Your task to perform on an android device: What's on my calendar tomorrow? Image 0: 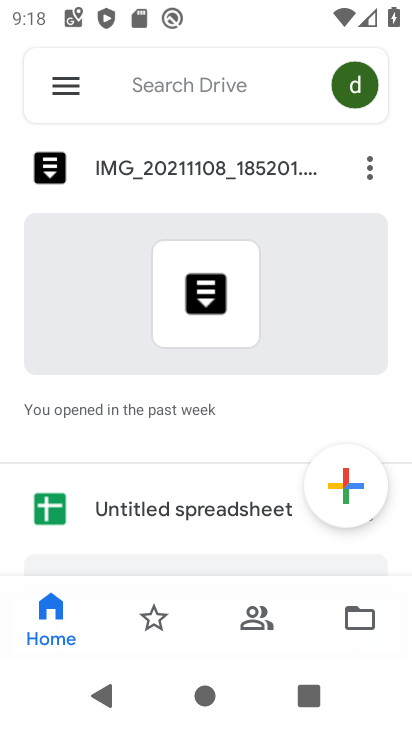
Step 0: press home button
Your task to perform on an android device: What's on my calendar tomorrow? Image 1: 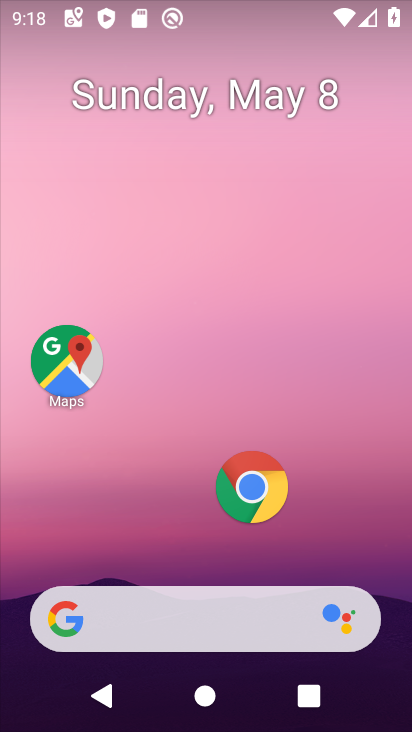
Step 1: drag from (166, 499) to (178, 22)
Your task to perform on an android device: What's on my calendar tomorrow? Image 2: 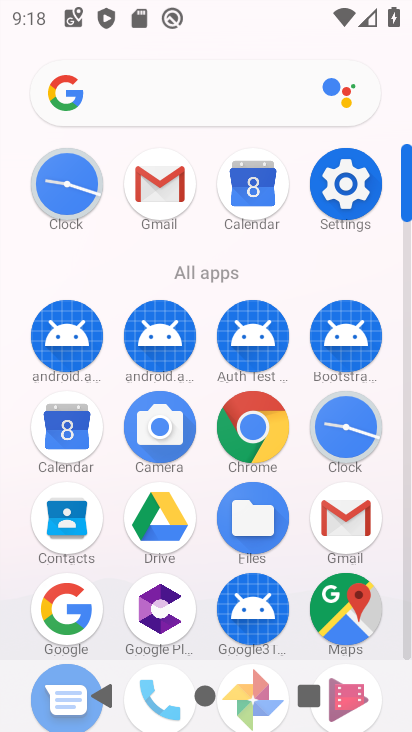
Step 2: click (253, 193)
Your task to perform on an android device: What's on my calendar tomorrow? Image 3: 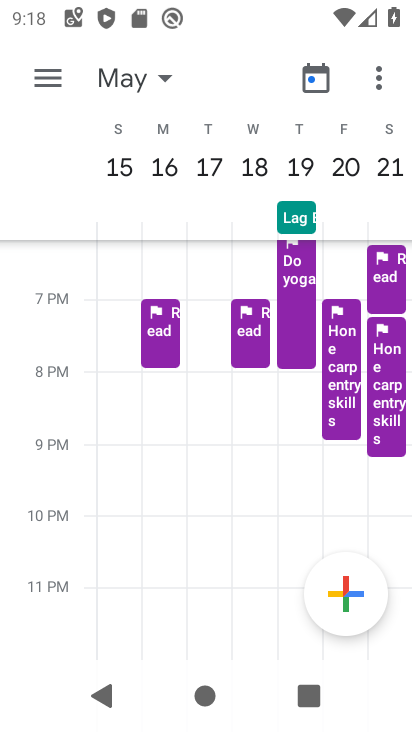
Step 3: click (49, 67)
Your task to perform on an android device: What's on my calendar tomorrow? Image 4: 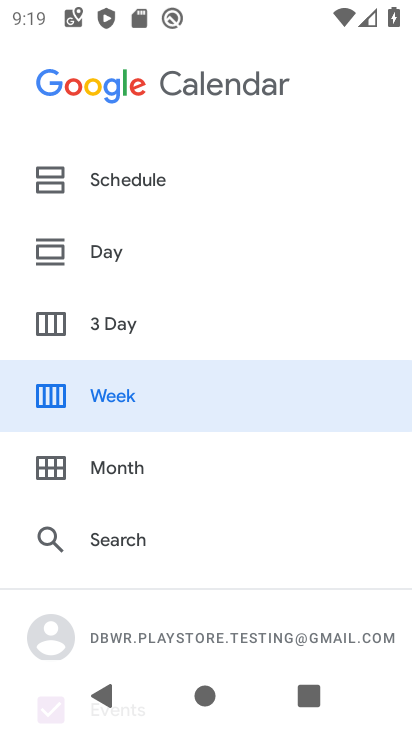
Step 4: click (92, 237)
Your task to perform on an android device: What's on my calendar tomorrow? Image 5: 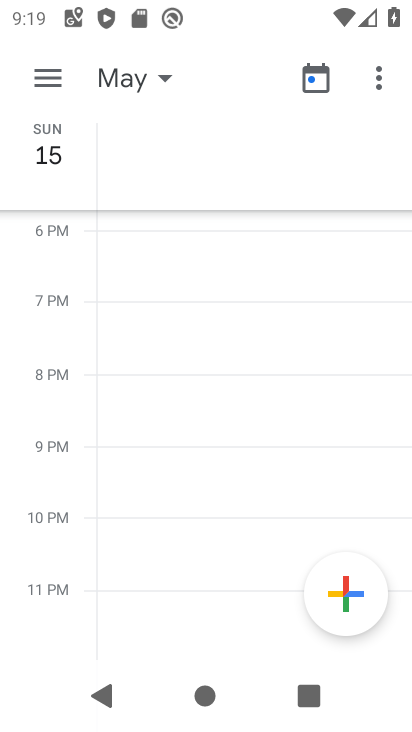
Step 5: click (51, 77)
Your task to perform on an android device: What's on my calendar tomorrow? Image 6: 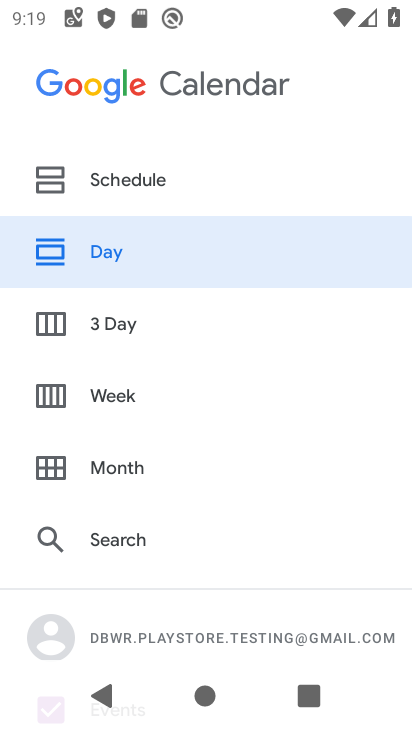
Step 6: click (95, 385)
Your task to perform on an android device: What's on my calendar tomorrow? Image 7: 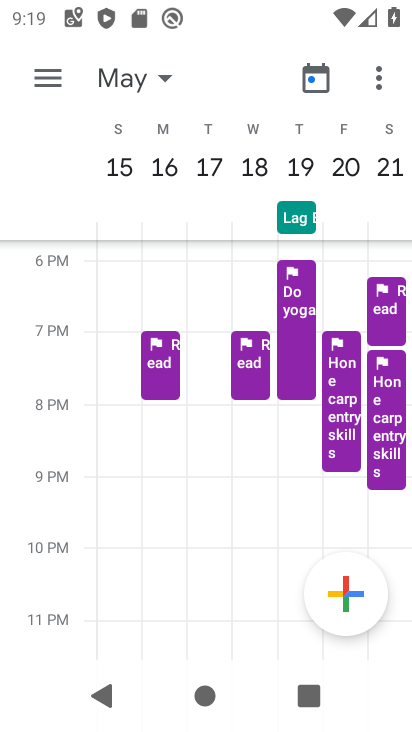
Step 7: click (52, 76)
Your task to perform on an android device: What's on my calendar tomorrow? Image 8: 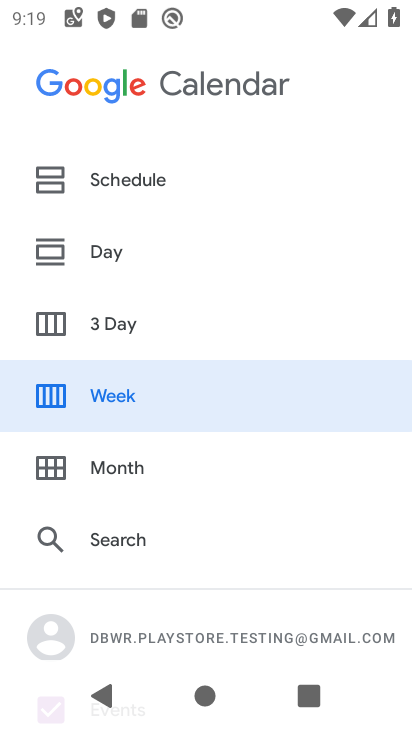
Step 8: click (125, 170)
Your task to perform on an android device: What's on my calendar tomorrow? Image 9: 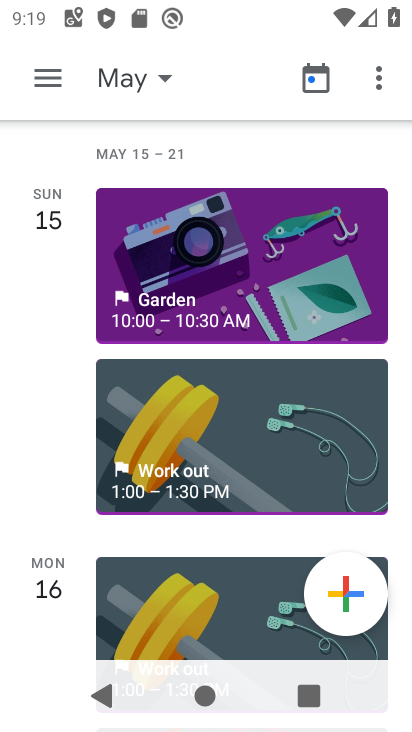
Step 9: task complete